Your task to perform on an android device: Open Google Maps and go to "Timeline" Image 0: 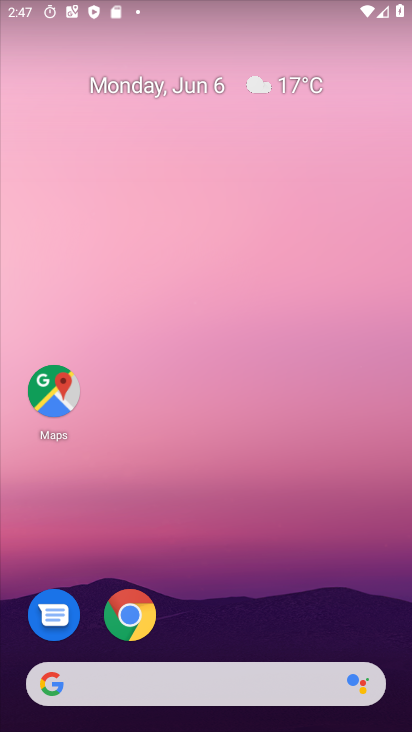
Step 0: click (378, 381)
Your task to perform on an android device: Open Google Maps and go to "Timeline" Image 1: 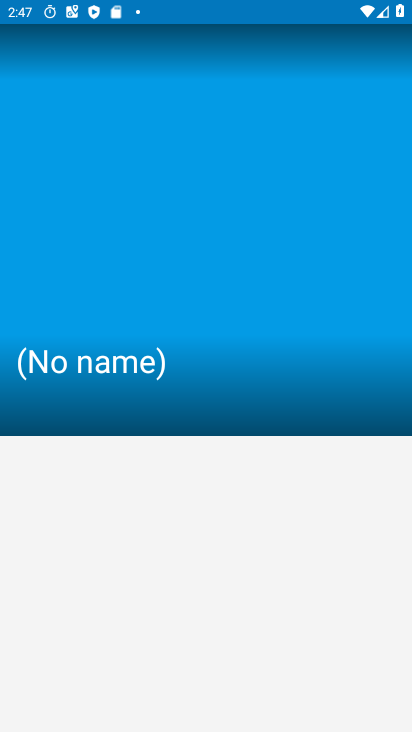
Step 1: drag from (203, 611) to (241, 1)
Your task to perform on an android device: Open Google Maps and go to "Timeline" Image 2: 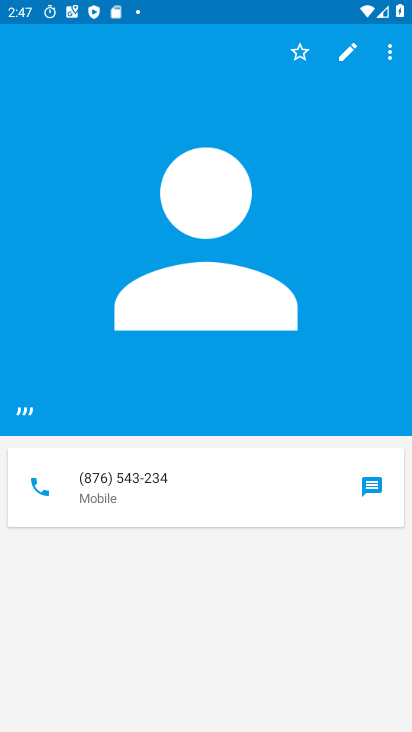
Step 2: press home button
Your task to perform on an android device: Open Google Maps and go to "Timeline" Image 3: 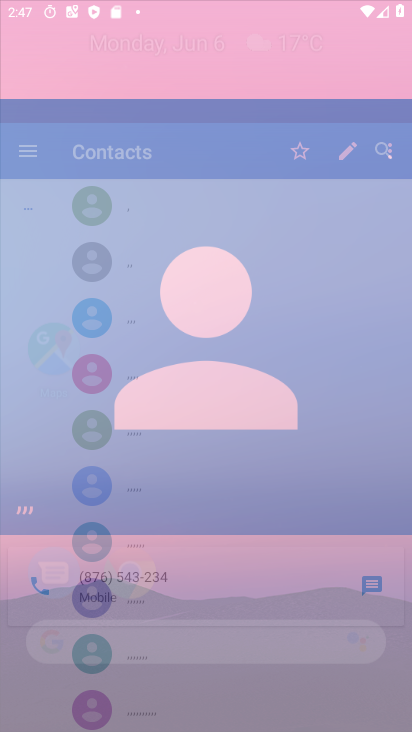
Step 3: drag from (207, 551) to (274, 42)
Your task to perform on an android device: Open Google Maps and go to "Timeline" Image 4: 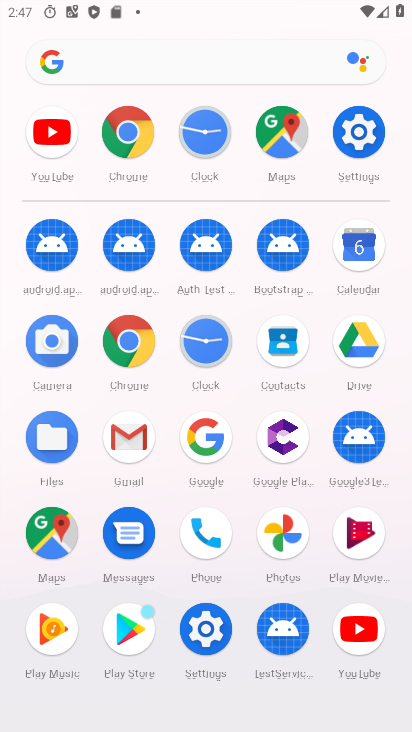
Step 4: click (52, 531)
Your task to perform on an android device: Open Google Maps and go to "Timeline" Image 5: 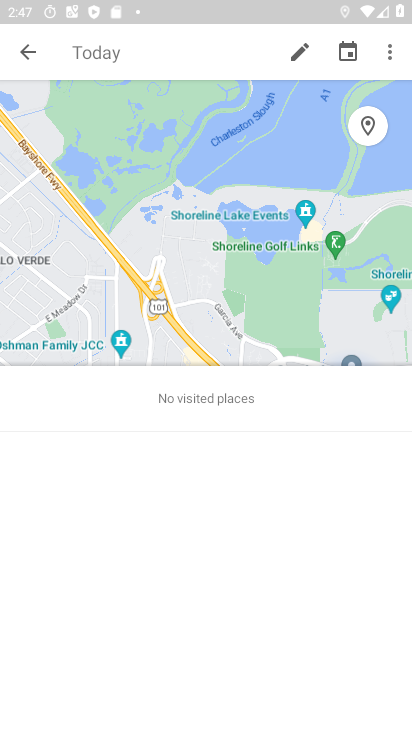
Step 5: click (31, 57)
Your task to perform on an android device: Open Google Maps and go to "Timeline" Image 6: 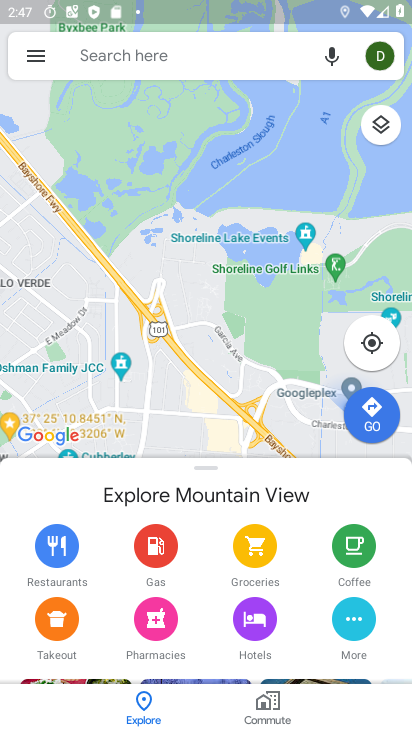
Step 6: drag from (222, 369) to (212, 160)
Your task to perform on an android device: Open Google Maps and go to "Timeline" Image 7: 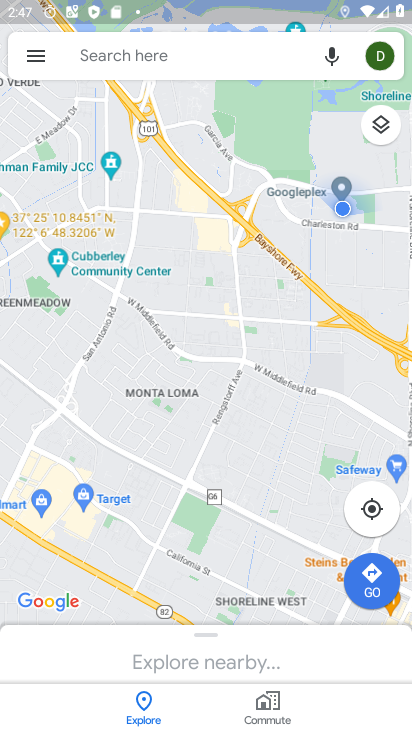
Step 7: click (24, 55)
Your task to perform on an android device: Open Google Maps and go to "Timeline" Image 8: 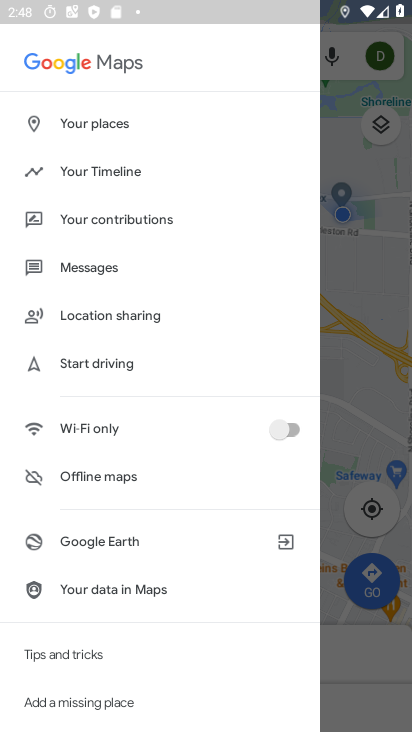
Step 8: click (150, 163)
Your task to perform on an android device: Open Google Maps and go to "Timeline" Image 9: 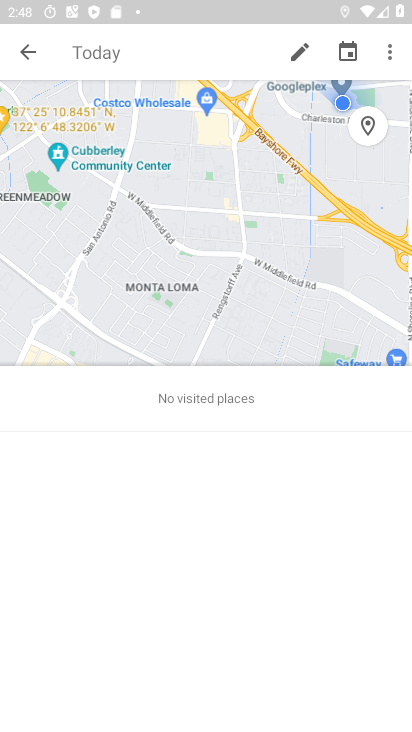
Step 9: drag from (217, 543) to (223, 194)
Your task to perform on an android device: Open Google Maps and go to "Timeline" Image 10: 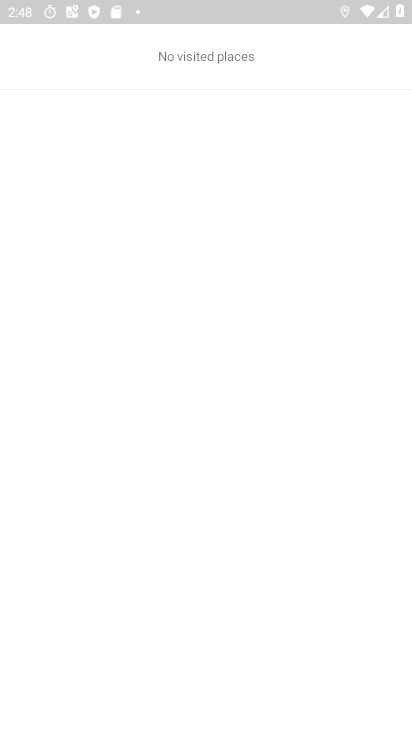
Step 10: drag from (292, 130) to (365, 646)
Your task to perform on an android device: Open Google Maps and go to "Timeline" Image 11: 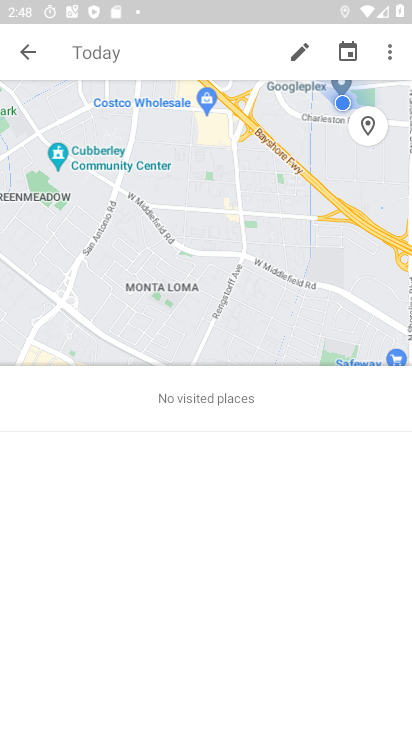
Step 11: click (34, 54)
Your task to perform on an android device: Open Google Maps and go to "Timeline" Image 12: 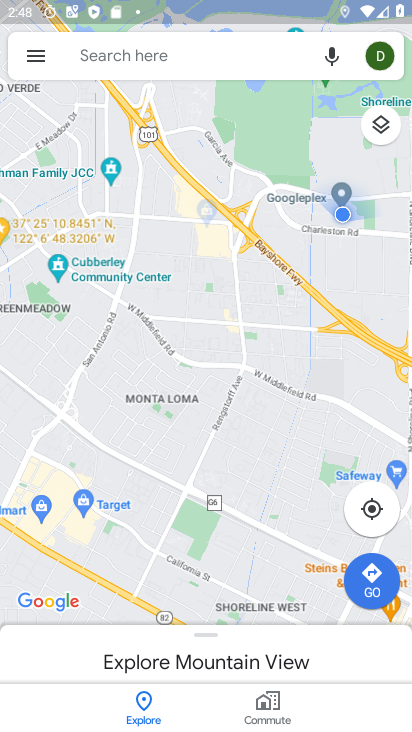
Step 12: click (30, 51)
Your task to perform on an android device: Open Google Maps and go to "Timeline" Image 13: 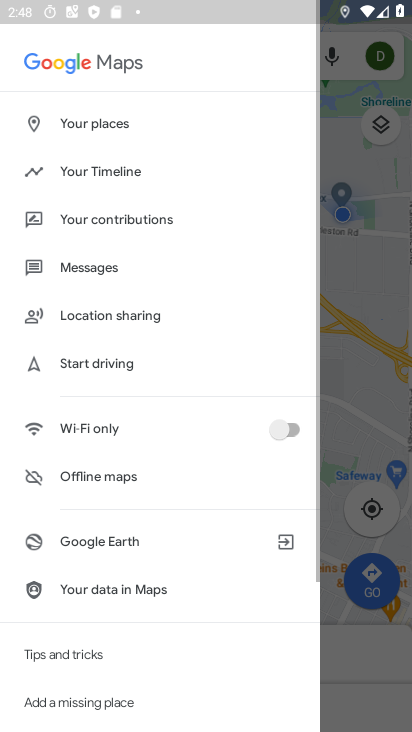
Step 13: drag from (151, 613) to (185, 133)
Your task to perform on an android device: Open Google Maps and go to "Timeline" Image 14: 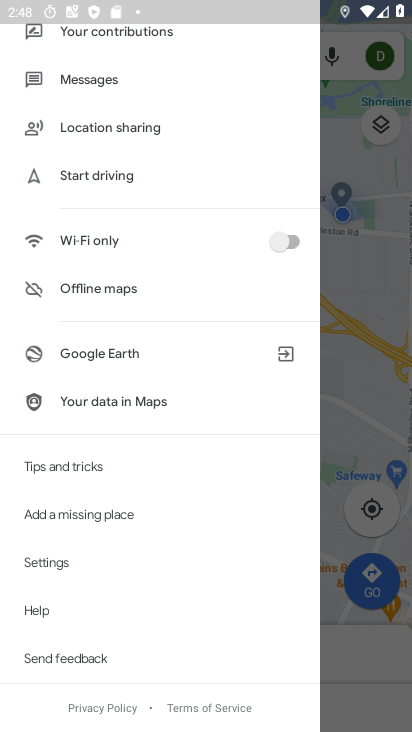
Step 14: drag from (106, 152) to (222, 700)
Your task to perform on an android device: Open Google Maps and go to "Timeline" Image 15: 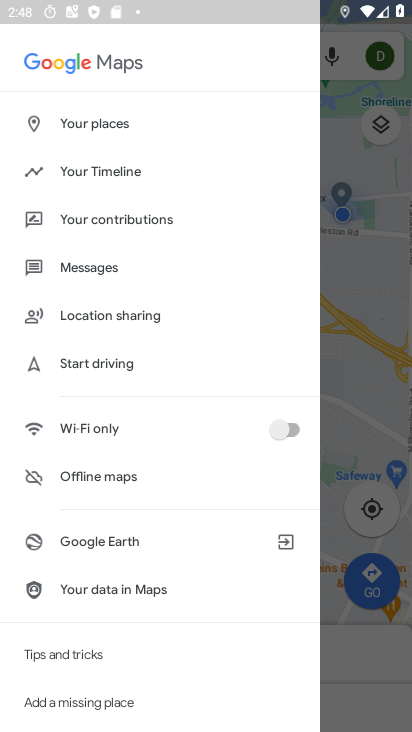
Step 15: click (94, 173)
Your task to perform on an android device: Open Google Maps and go to "Timeline" Image 16: 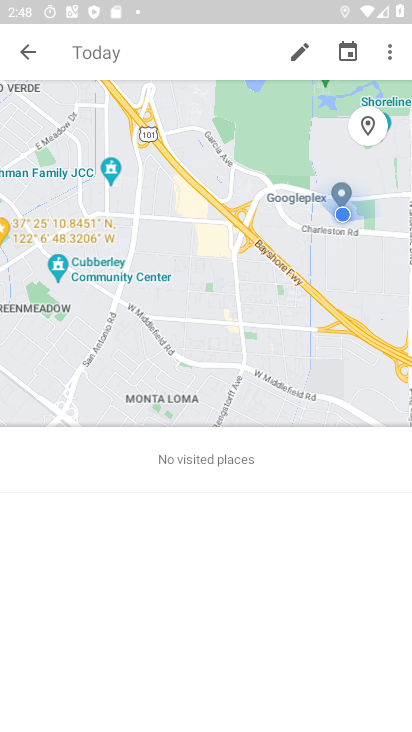
Step 16: task complete